Your task to perform on an android device: Set the phone to "Do not disturb". Image 0: 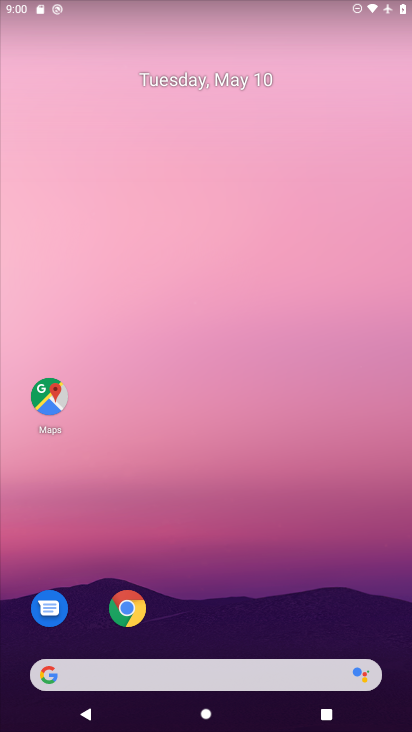
Step 0: drag from (311, 613) to (317, 376)
Your task to perform on an android device: Set the phone to "Do not disturb". Image 1: 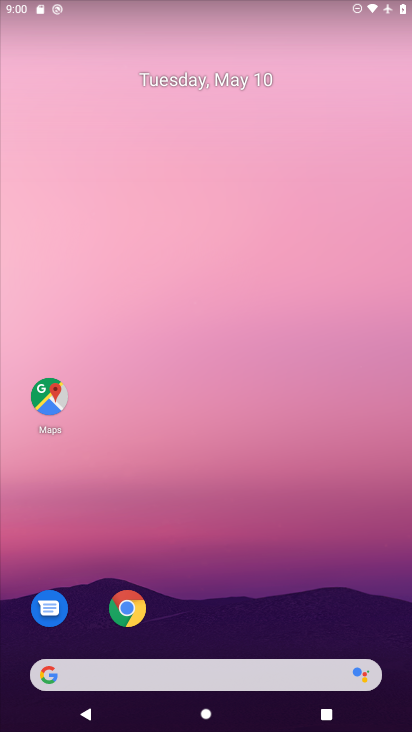
Step 1: drag from (241, 2) to (224, 490)
Your task to perform on an android device: Set the phone to "Do not disturb". Image 2: 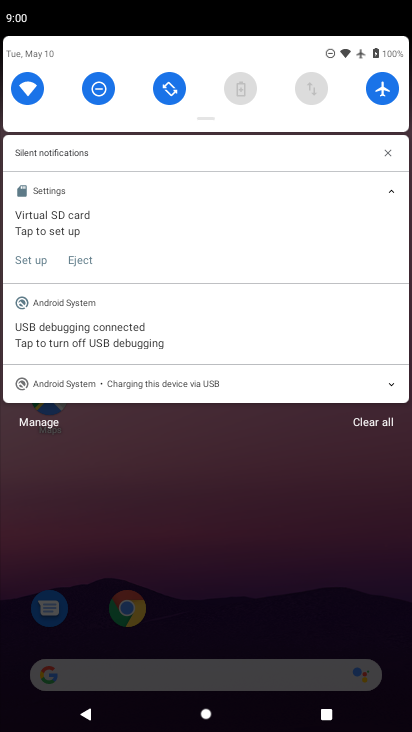
Step 2: click (101, 93)
Your task to perform on an android device: Set the phone to "Do not disturb". Image 3: 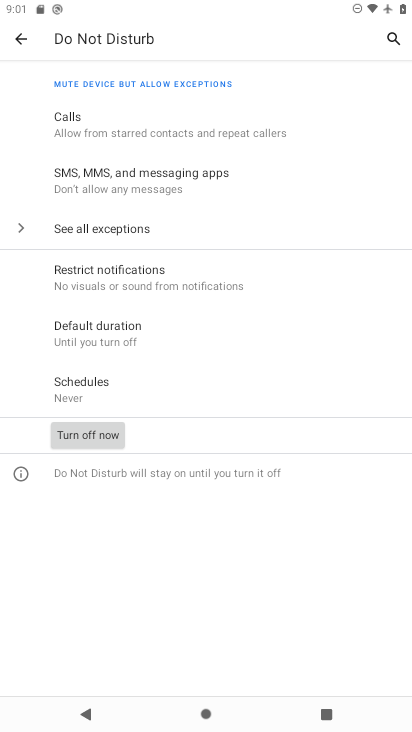
Step 3: task complete